Your task to perform on an android device: add a label to a message in the gmail app Image 0: 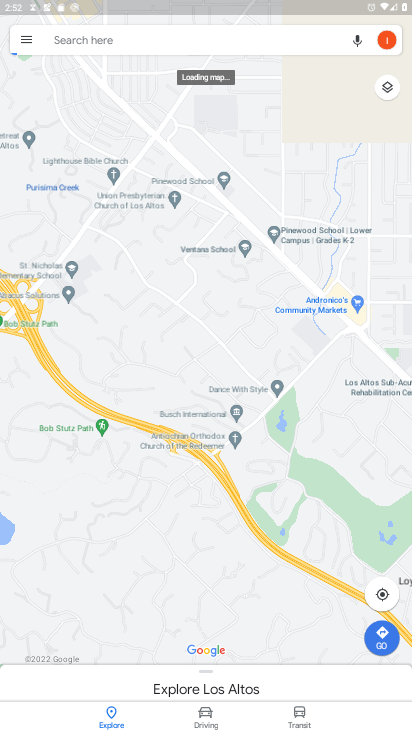
Step 0: drag from (203, 582) to (208, 243)
Your task to perform on an android device: add a label to a message in the gmail app Image 1: 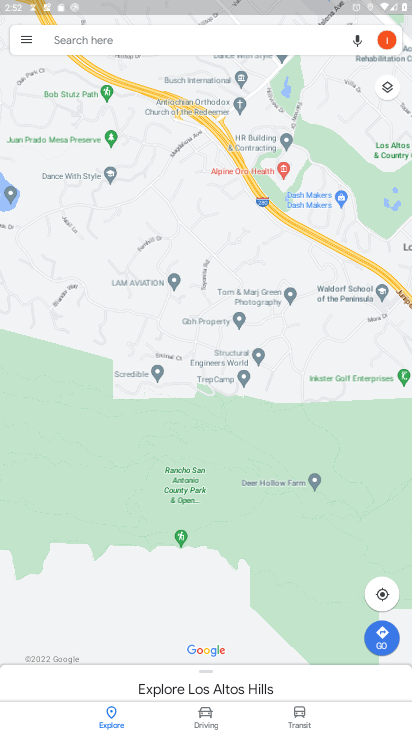
Step 1: press home button
Your task to perform on an android device: add a label to a message in the gmail app Image 2: 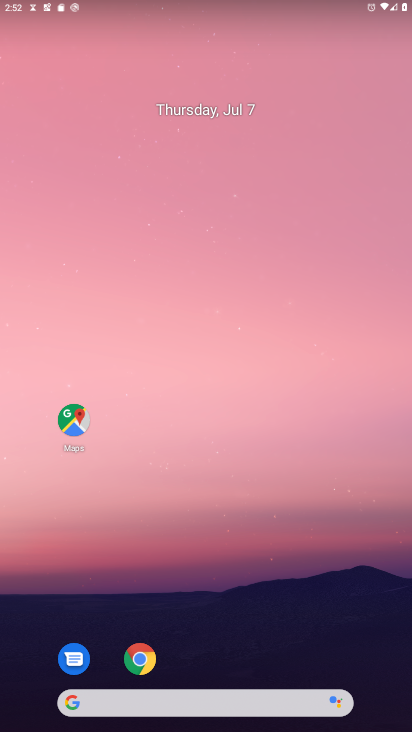
Step 2: drag from (190, 667) to (207, 110)
Your task to perform on an android device: add a label to a message in the gmail app Image 3: 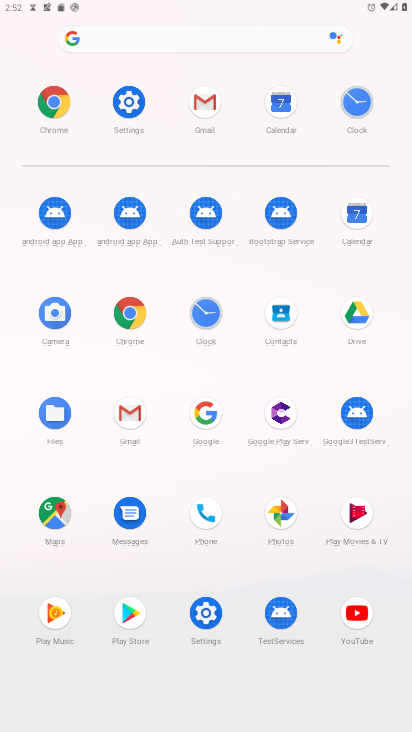
Step 3: click (207, 112)
Your task to perform on an android device: add a label to a message in the gmail app Image 4: 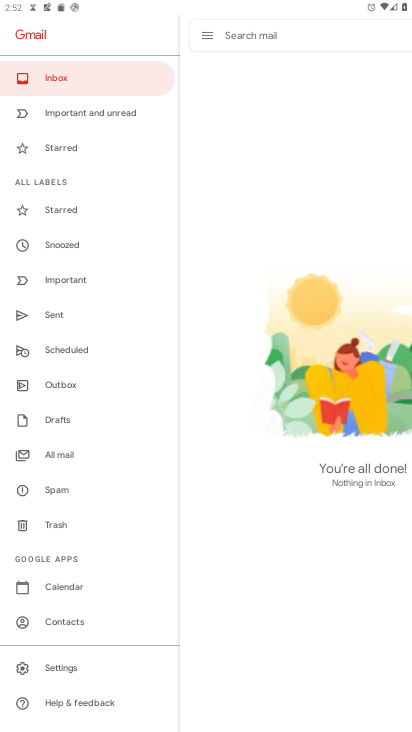
Step 4: click (204, 37)
Your task to perform on an android device: add a label to a message in the gmail app Image 5: 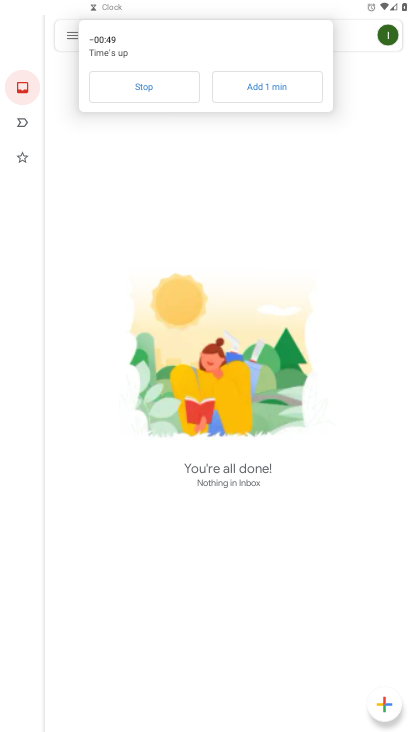
Step 5: click (142, 89)
Your task to perform on an android device: add a label to a message in the gmail app Image 6: 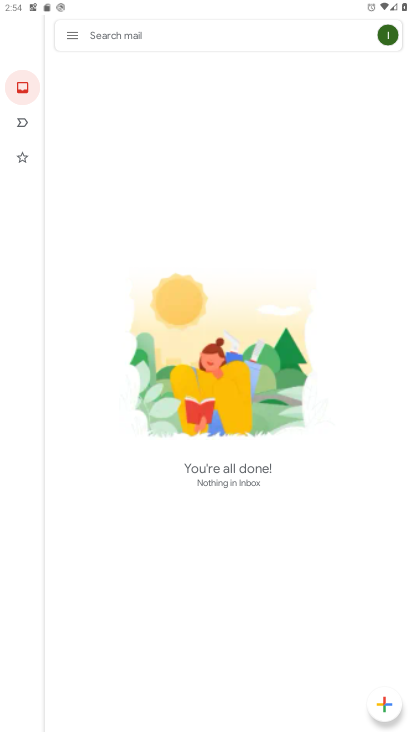
Step 6: task complete